Your task to perform on an android device: change notifications settings Image 0: 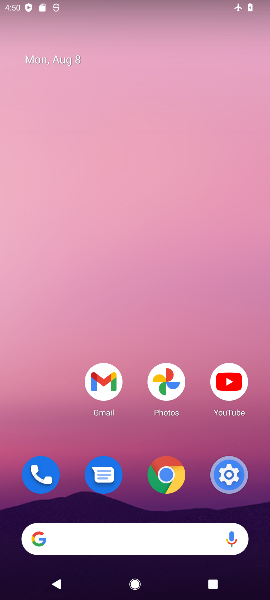
Step 0: drag from (68, 435) to (82, 216)
Your task to perform on an android device: change notifications settings Image 1: 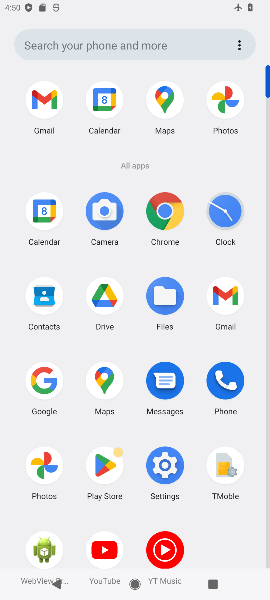
Step 1: click (164, 468)
Your task to perform on an android device: change notifications settings Image 2: 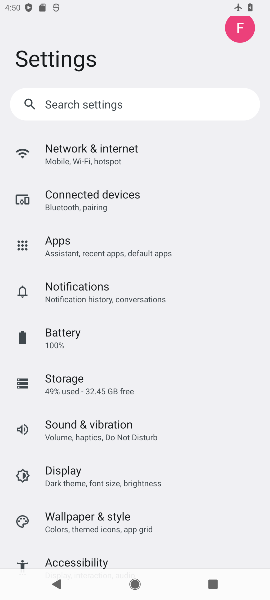
Step 2: drag from (204, 387) to (208, 349)
Your task to perform on an android device: change notifications settings Image 3: 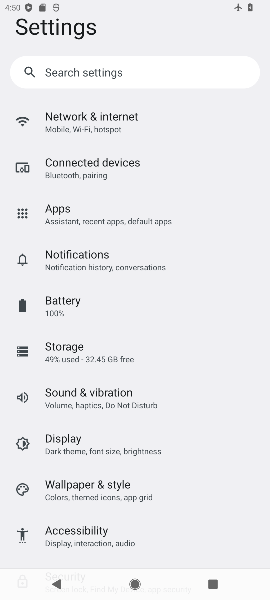
Step 3: drag from (202, 433) to (207, 353)
Your task to perform on an android device: change notifications settings Image 4: 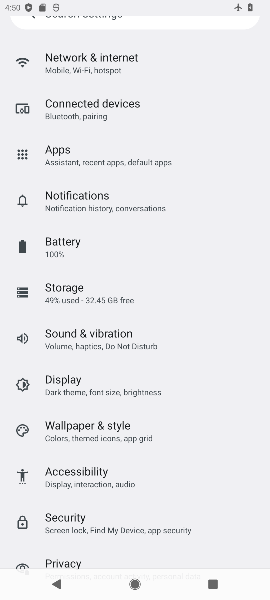
Step 4: drag from (200, 427) to (200, 318)
Your task to perform on an android device: change notifications settings Image 5: 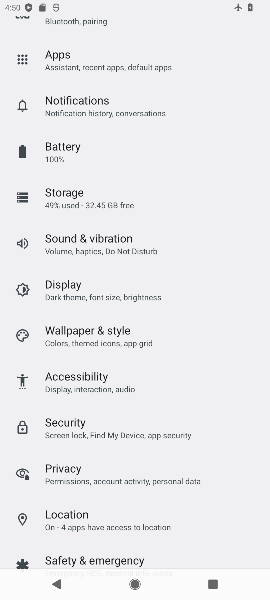
Step 5: drag from (220, 480) to (210, 321)
Your task to perform on an android device: change notifications settings Image 6: 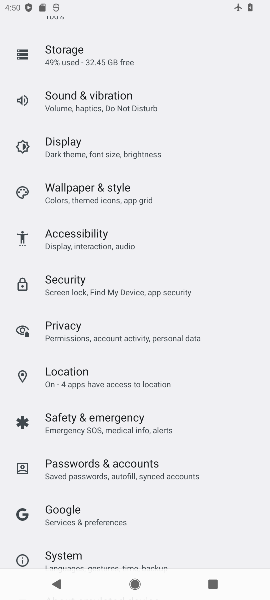
Step 6: drag from (218, 227) to (228, 287)
Your task to perform on an android device: change notifications settings Image 7: 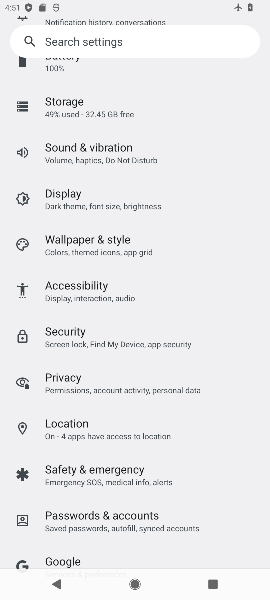
Step 7: drag from (224, 215) to (228, 349)
Your task to perform on an android device: change notifications settings Image 8: 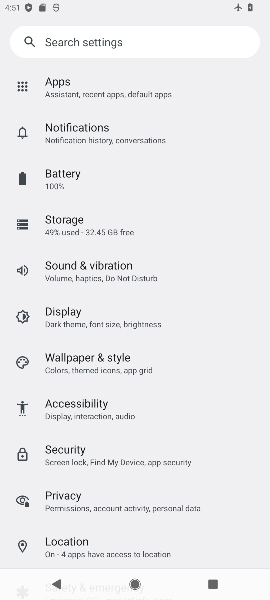
Step 8: drag from (221, 239) to (222, 342)
Your task to perform on an android device: change notifications settings Image 9: 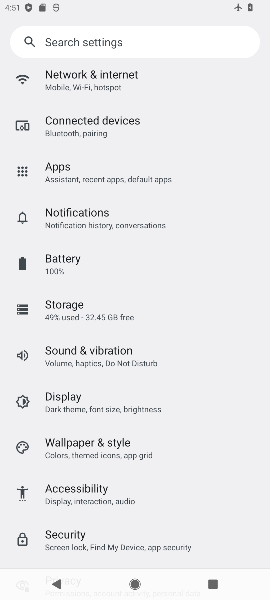
Step 9: drag from (225, 240) to (225, 313)
Your task to perform on an android device: change notifications settings Image 10: 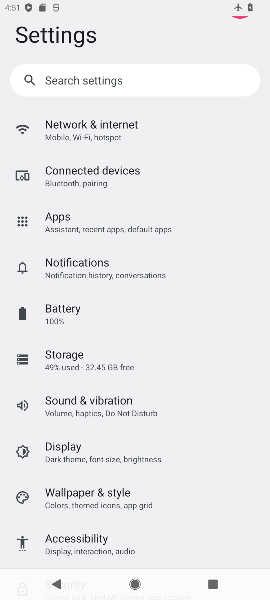
Step 10: click (157, 261)
Your task to perform on an android device: change notifications settings Image 11: 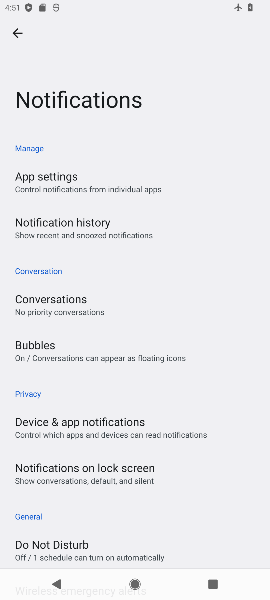
Step 11: drag from (233, 388) to (226, 287)
Your task to perform on an android device: change notifications settings Image 12: 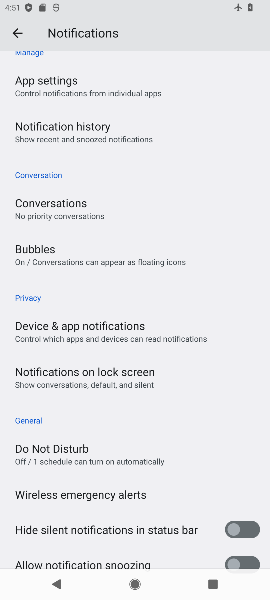
Step 12: drag from (219, 414) to (216, 306)
Your task to perform on an android device: change notifications settings Image 13: 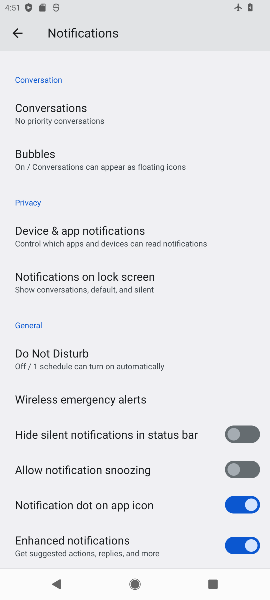
Step 13: drag from (204, 404) to (199, 274)
Your task to perform on an android device: change notifications settings Image 14: 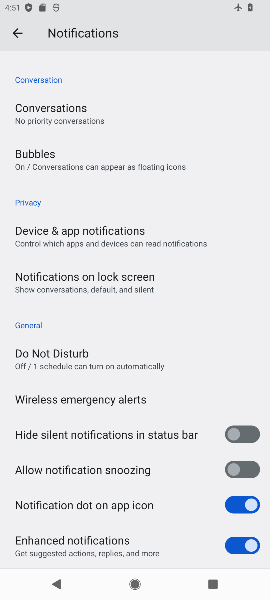
Step 14: drag from (226, 157) to (227, 265)
Your task to perform on an android device: change notifications settings Image 15: 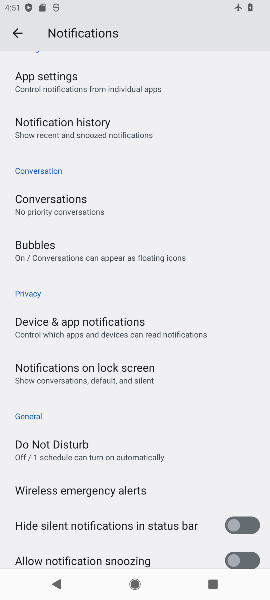
Step 15: drag from (219, 142) to (228, 256)
Your task to perform on an android device: change notifications settings Image 16: 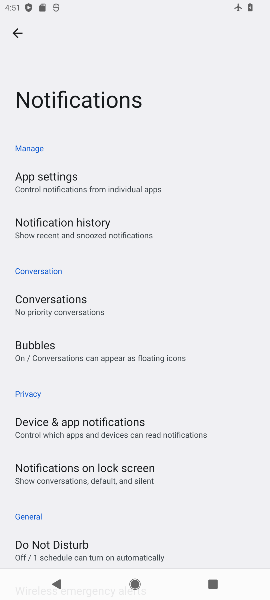
Step 16: click (164, 185)
Your task to perform on an android device: change notifications settings Image 17: 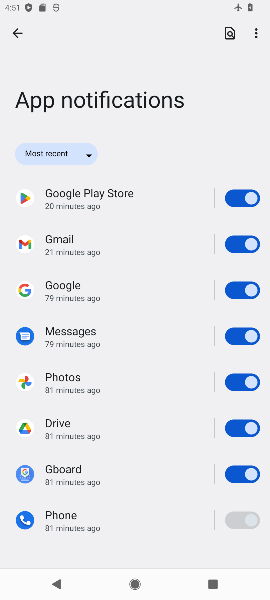
Step 17: click (231, 197)
Your task to perform on an android device: change notifications settings Image 18: 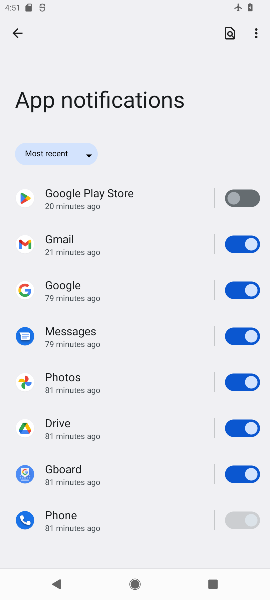
Step 18: click (234, 247)
Your task to perform on an android device: change notifications settings Image 19: 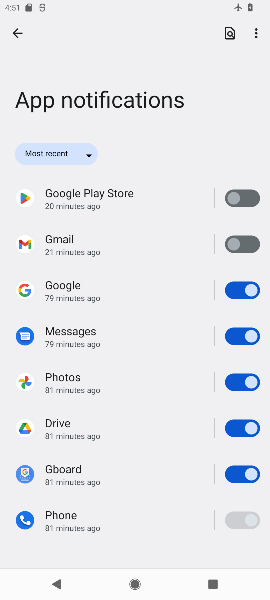
Step 19: click (234, 297)
Your task to perform on an android device: change notifications settings Image 20: 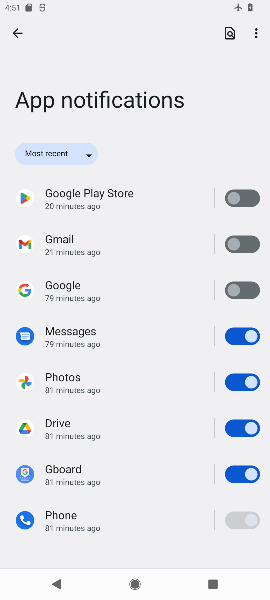
Step 20: click (231, 342)
Your task to perform on an android device: change notifications settings Image 21: 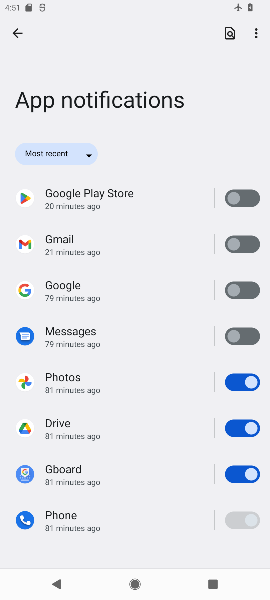
Step 21: click (232, 387)
Your task to perform on an android device: change notifications settings Image 22: 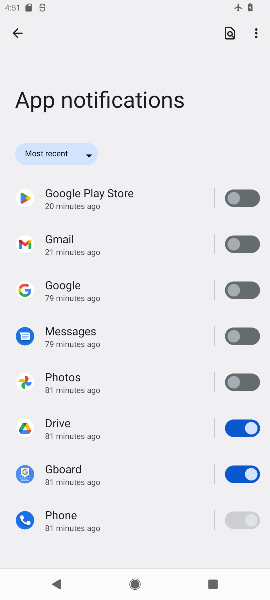
Step 22: click (234, 422)
Your task to perform on an android device: change notifications settings Image 23: 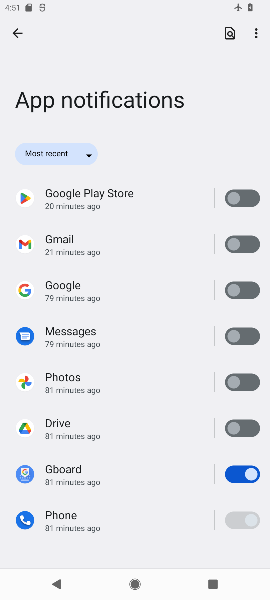
Step 23: click (235, 469)
Your task to perform on an android device: change notifications settings Image 24: 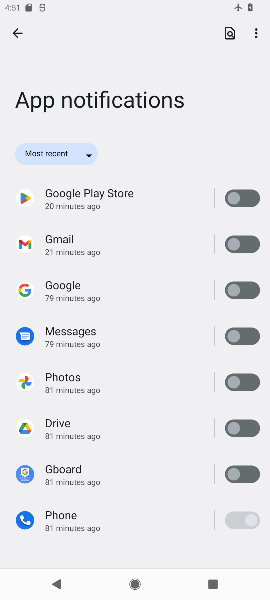
Step 24: task complete